Your task to perform on an android device: toggle javascript in the chrome app Image 0: 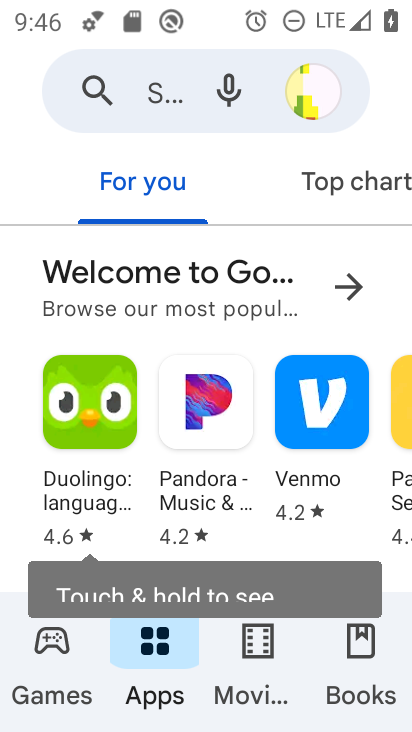
Step 0: press home button
Your task to perform on an android device: toggle javascript in the chrome app Image 1: 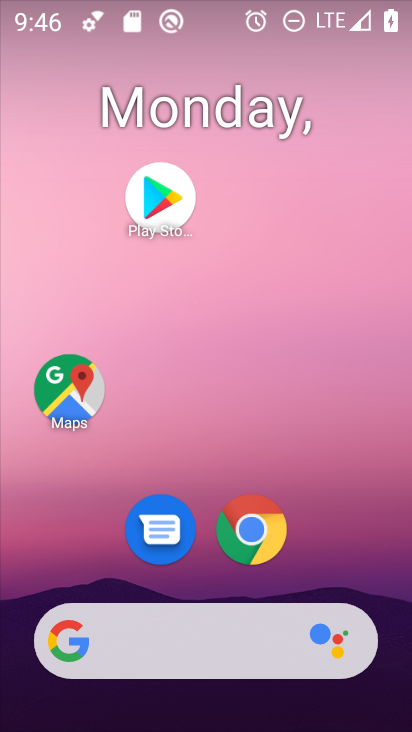
Step 1: click (255, 533)
Your task to perform on an android device: toggle javascript in the chrome app Image 2: 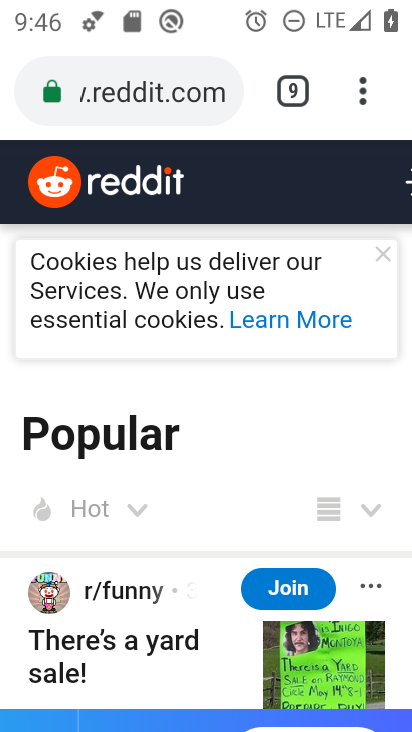
Step 2: click (357, 93)
Your task to perform on an android device: toggle javascript in the chrome app Image 3: 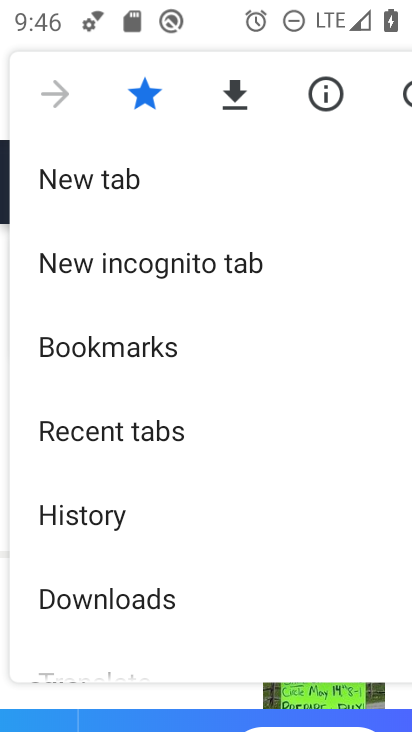
Step 3: drag from (245, 490) to (177, 178)
Your task to perform on an android device: toggle javascript in the chrome app Image 4: 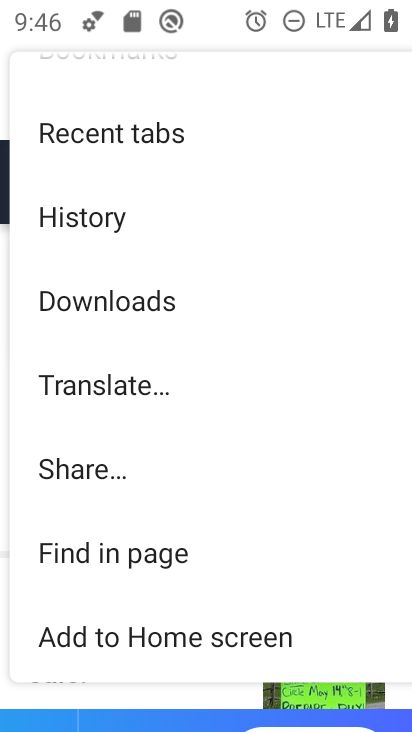
Step 4: drag from (211, 501) to (186, 253)
Your task to perform on an android device: toggle javascript in the chrome app Image 5: 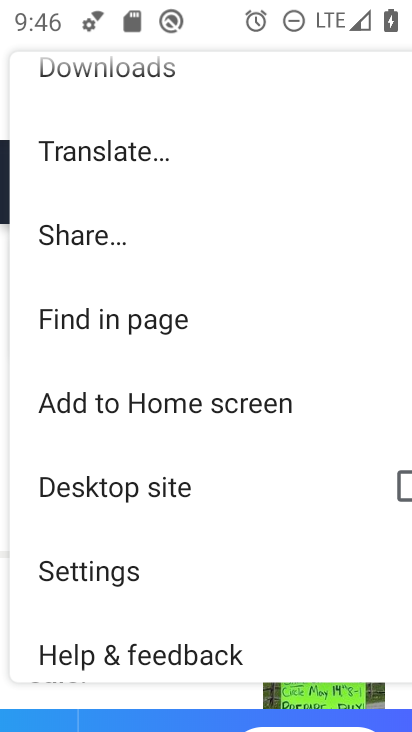
Step 5: click (92, 569)
Your task to perform on an android device: toggle javascript in the chrome app Image 6: 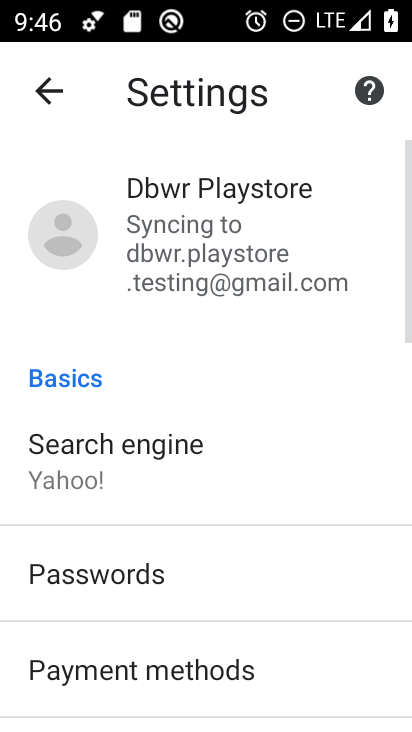
Step 6: drag from (201, 559) to (166, 339)
Your task to perform on an android device: toggle javascript in the chrome app Image 7: 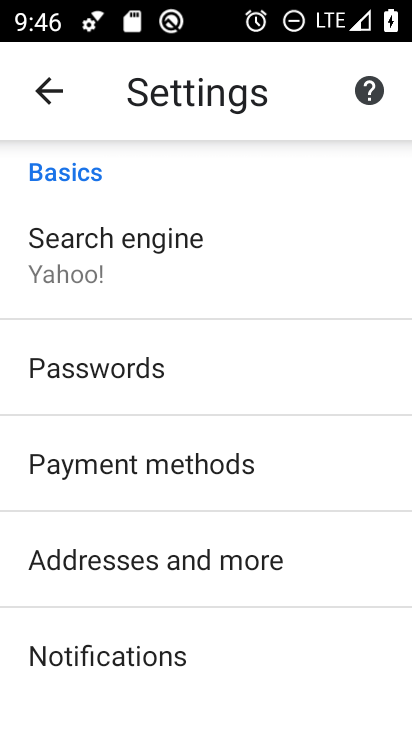
Step 7: drag from (279, 596) to (235, 211)
Your task to perform on an android device: toggle javascript in the chrome app Image 8: 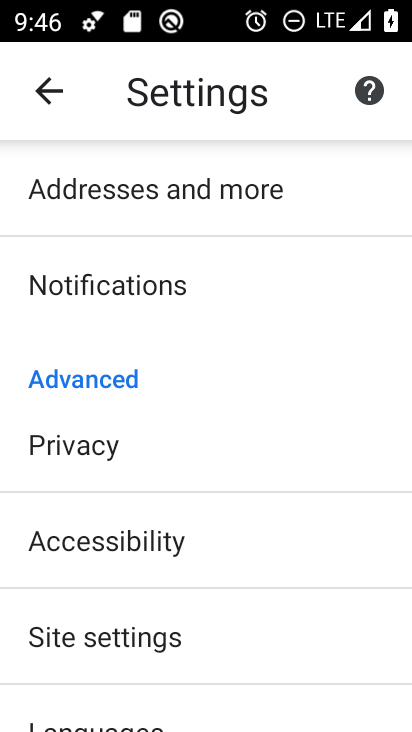
Step 8: drag from (235, 503) to (222, 218)
Your task to perform on an android device: toggle javascript in the chrome app Image 9: 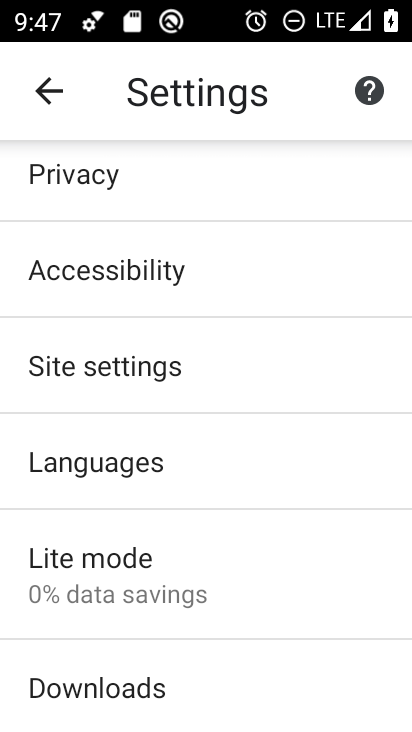
Step 9: click (128, 364)
Your task to perform on an android device: toggle javascript in the chrome app Image 10: 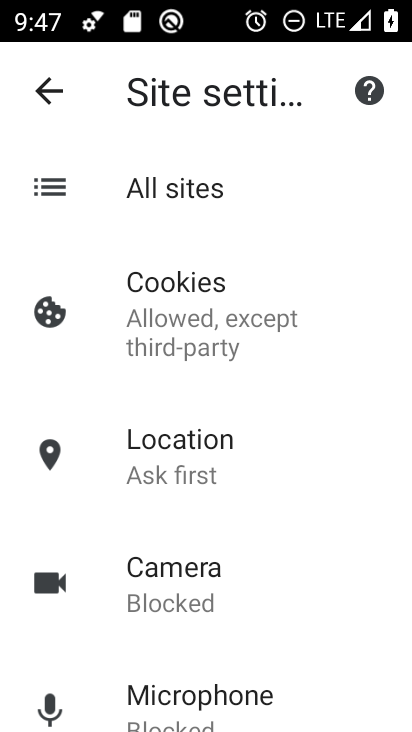
Step 10: drag from (262, 484) to (214, 168)
Your task to perform on an android device: toggle javascript in the chrome app Image 11: 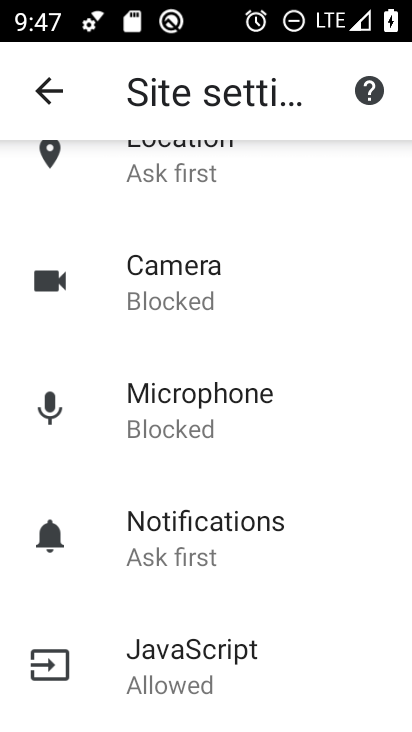
Step 11: click (203, 641)
Your task to perform on an android device: toggle javascript in the chrome app Image 12: 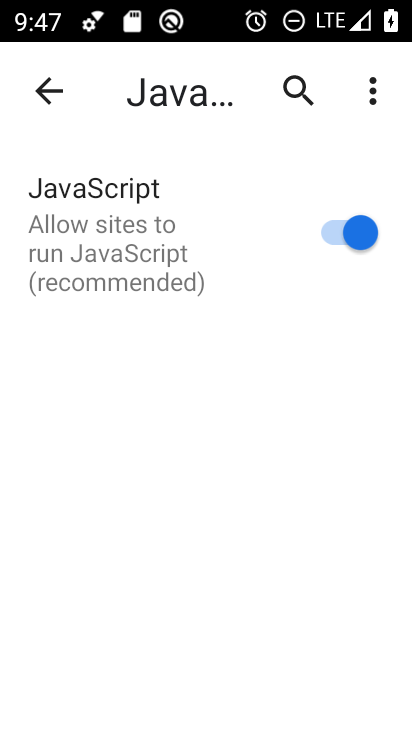
Step 12: click (351, 238)
Your task to perform on an android device: toggle javascript in the chrome app Image 13: 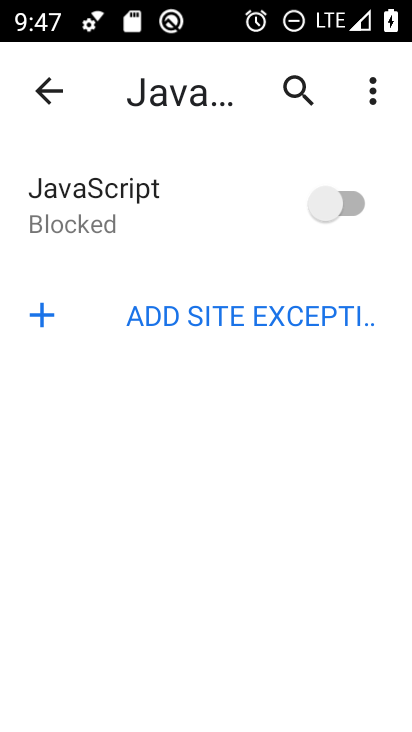
Step 13: task complete